Your task to perform on an android device: check google app version Image 0: 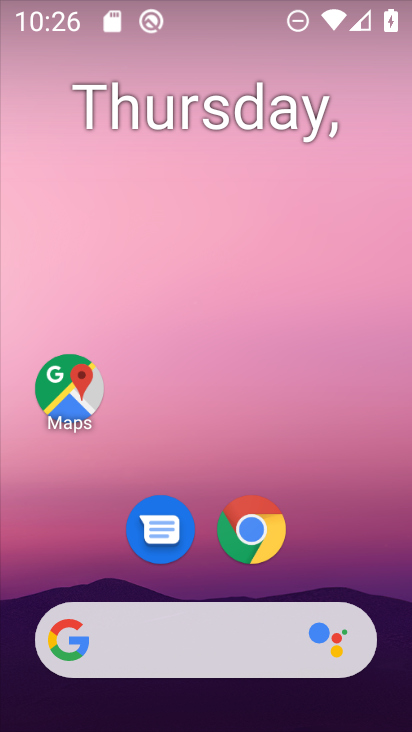
Step 0: drag from (174, 699) to (350, 36)
Your task to perform on an android device: check google app version Image 1: 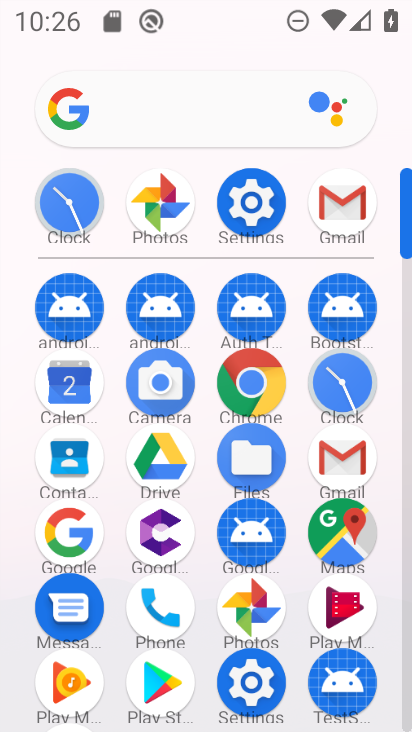
Step 1: click (73, 532)
Your task to perform on an android device: check google app version Image 2: 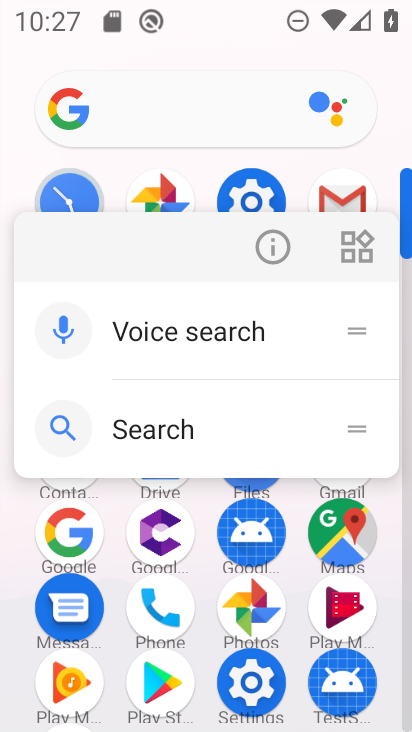
Step 2: click (256, 244)
Your task to perform on an android device: check google app version Image 3: 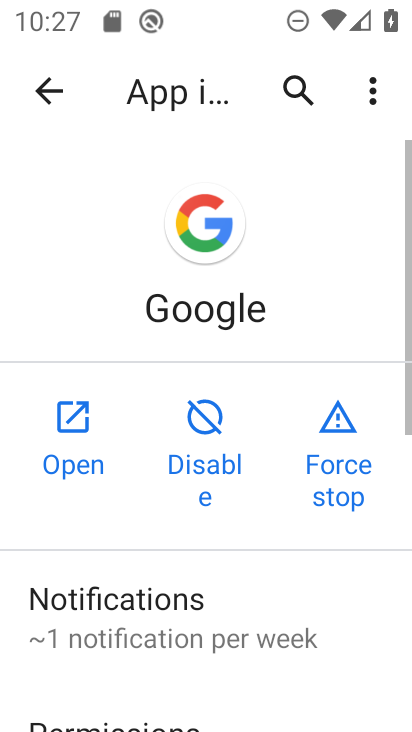
Step 3: drag from (308, 687) to (326, 132)
Your task to perform on an android device: check google app version Image 4: 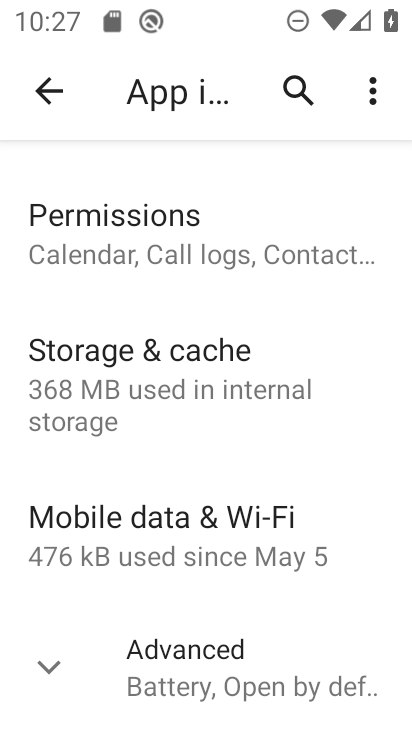
Step 4: drag from (255, 667) to (283, 106)
Your task to perform on an android device: check google app version Image 5: 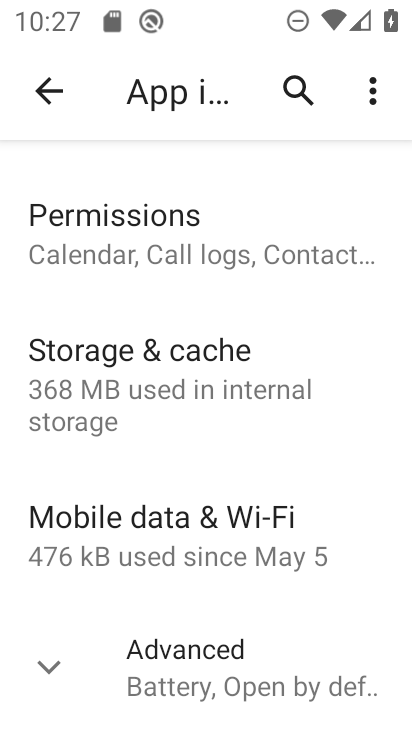
Step 5: click (245, 680)
Your task to perform on an android device: check google app version Image 6: 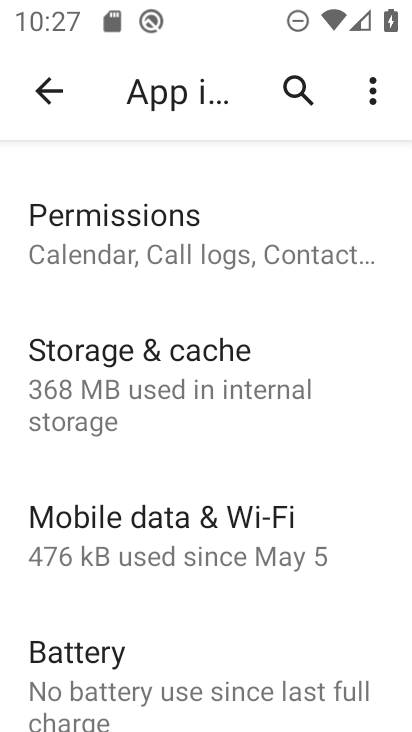
Step 6: task complete